Your task to perform on an android device: Open my contact list Image 0: 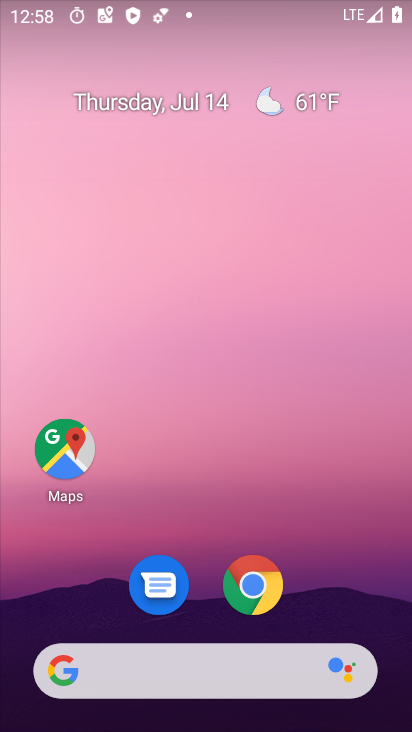
Step 0: drag from (303, 598) to (260, 46)
Your task to perform on an android device: Open my contact list Image 1: 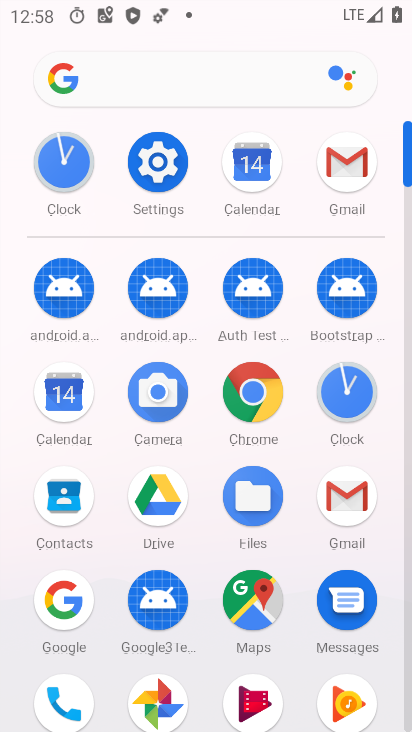
Step 1: click (58, 505)
Your task to perform on an android device: Open my contact list Image 2: 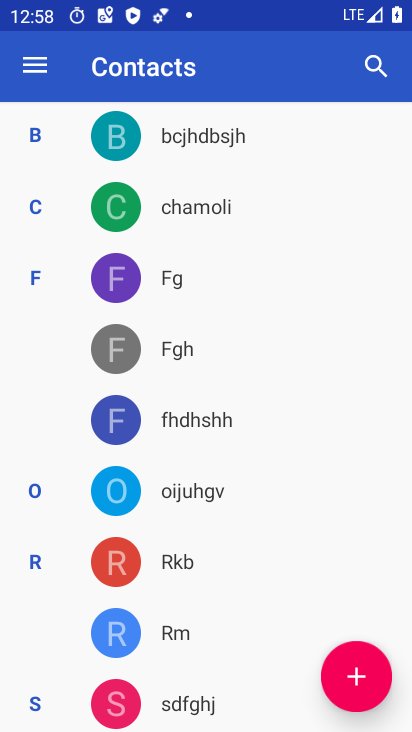
Step 2: task complete